Your task to perform on an android device: turn off sleep mode Image 0: 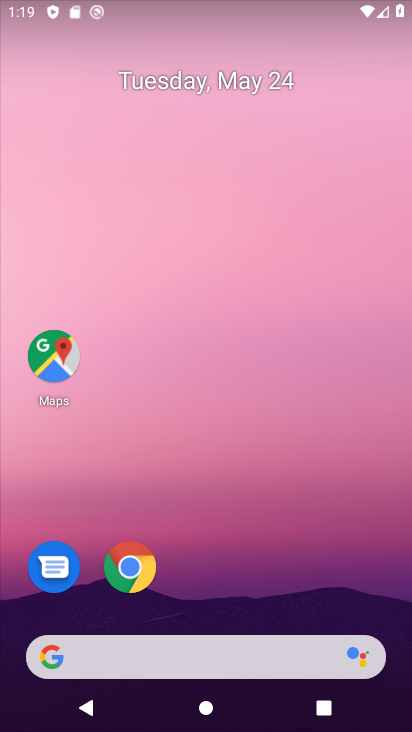
Step 0: drag from (252, 143) to (261, 100)
Your task to perform on an android device: turn off sleep mode Image 1: 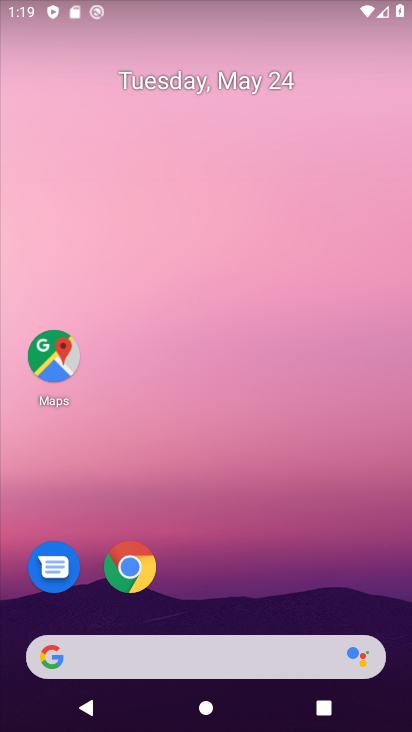
Step 1: drag from (261, 572) to (298, 109)
Your task to perform on an android device: turn off sleep mode Image 2: 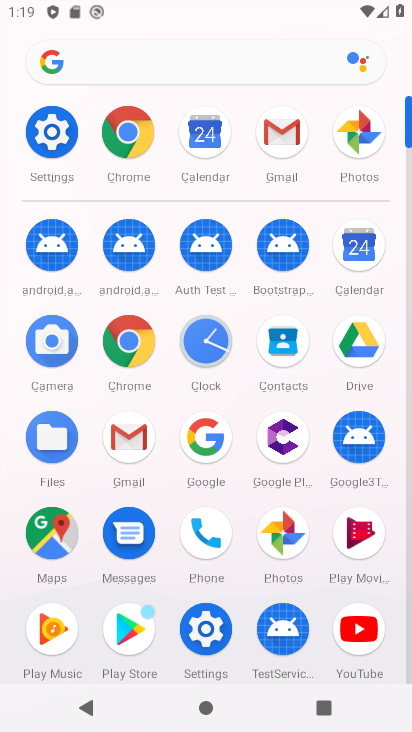
Step 2: click (53, 151)
Your task to perform on an android device: turn off sleep mode Image 3: 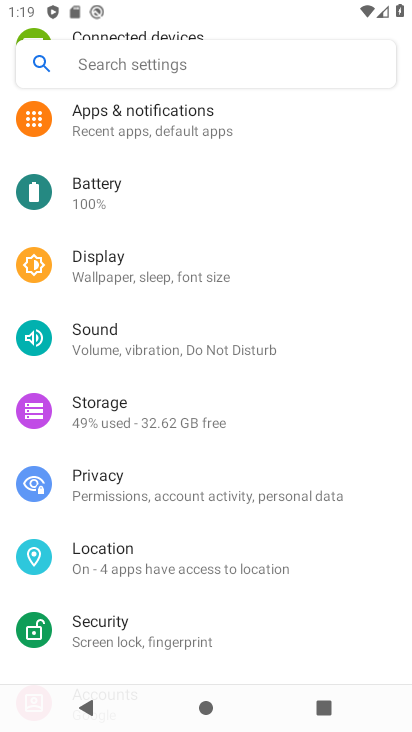
Step 3: click (230, 73)
Your task to perform on an android device: turn off sleep mode Image 4: 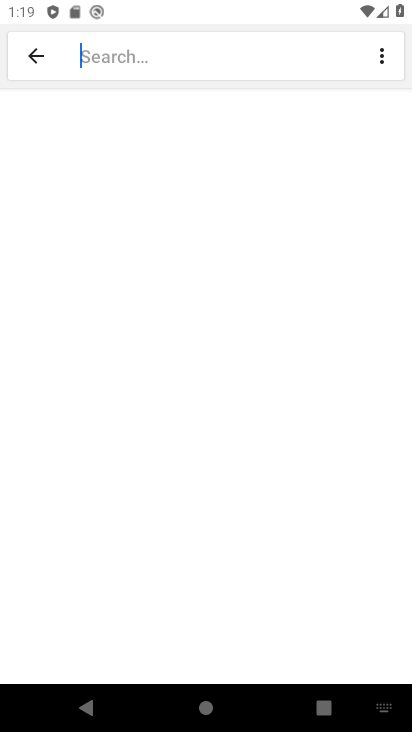
Step 4: type "sleep mode"
Your task to perform on an android device: turn off sleep mode Image 5: 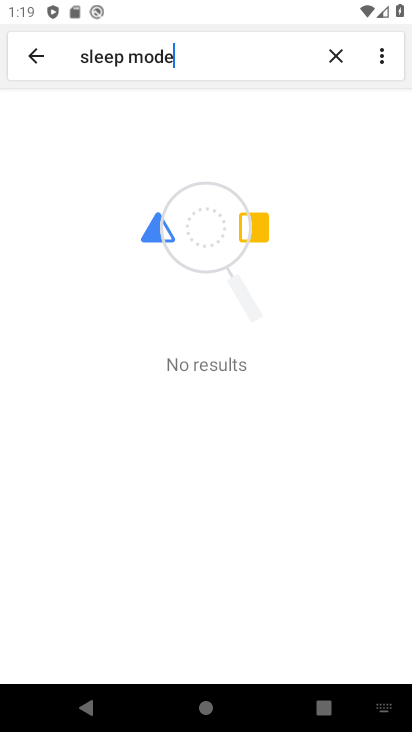
Step 5: task complete